Your task to perform on an android device: Do I have any events today? Image 0: 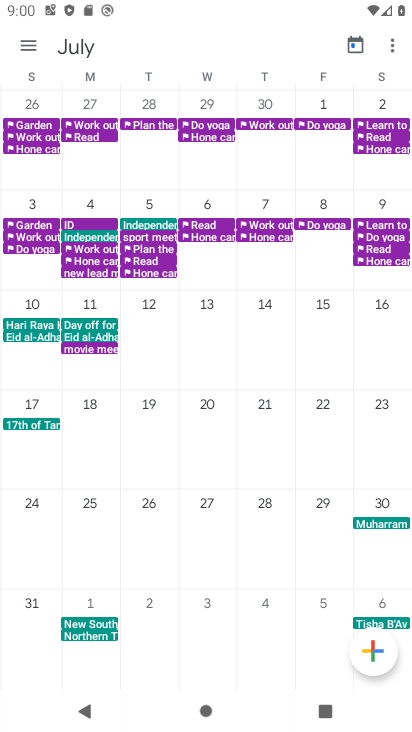
Step 0: click (38, 41)
Your task to perform on an android device: Do I have any events today? Image 1: 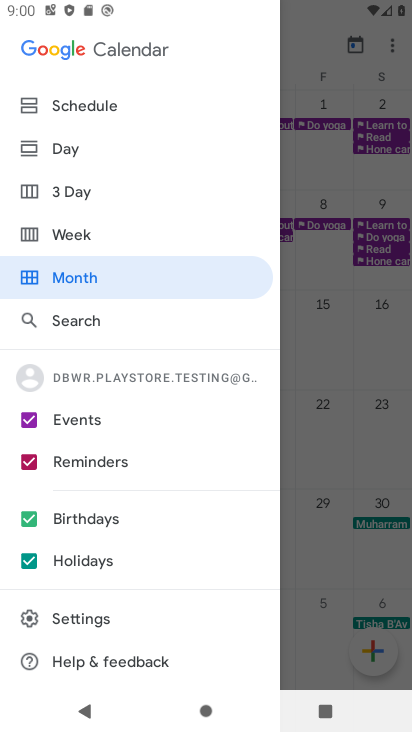
Step 1: click (125, 103)
Your task to perform on an android device: Do I have any events today? Image 2: 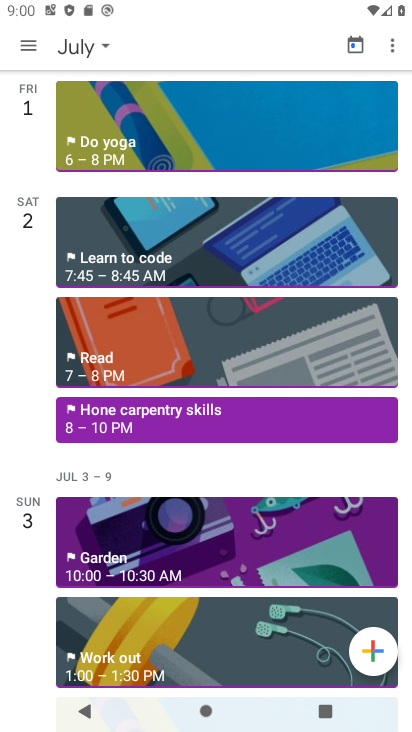
Step 2: click (90, 38)
Your task to perform on an android device: Do I have any events today? Image 3: 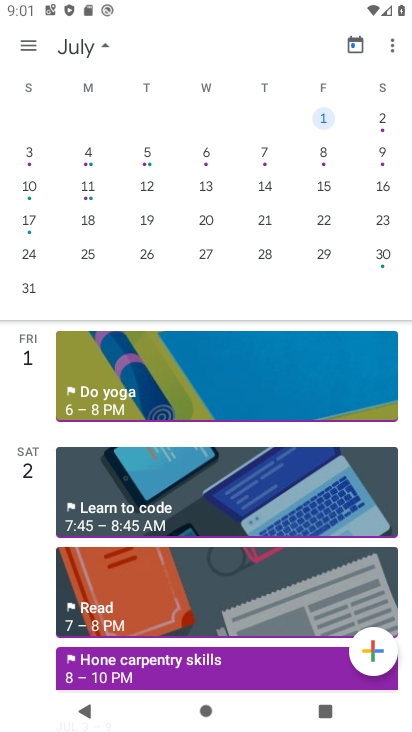
Step 3: drag from (38, 221) to (388, 232)
Your task to perform on an android device: Do I have any events today? Image 4: 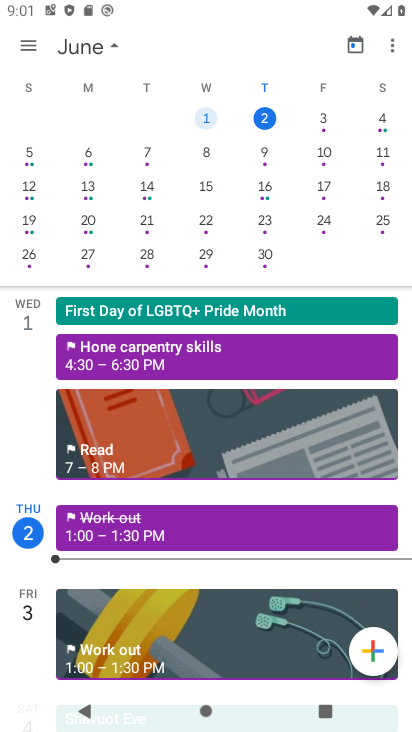
Step 4: click (268, 117)
Your task to perform on an android device: Do I have any events today? Image 5: 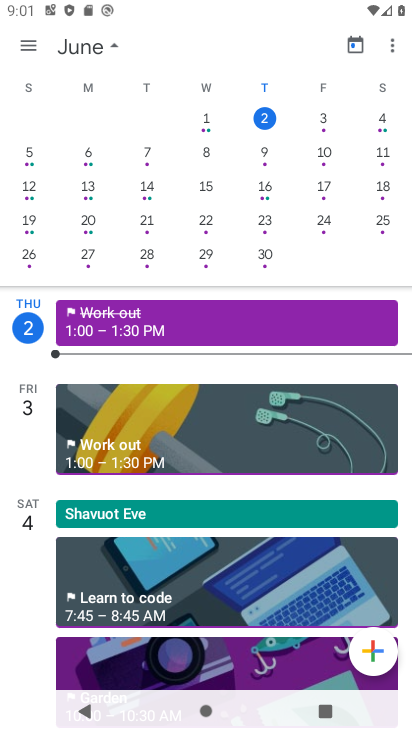
Step 5: click (110, 43)
Your task to perform on an android device: Do I have any events today? Image 6: 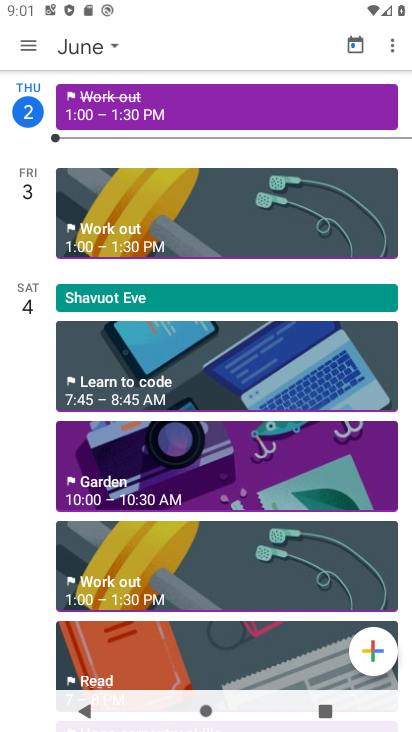
Step 6: task complete